Your task to perform on an android device: toggle improve location accuracy Image 0: 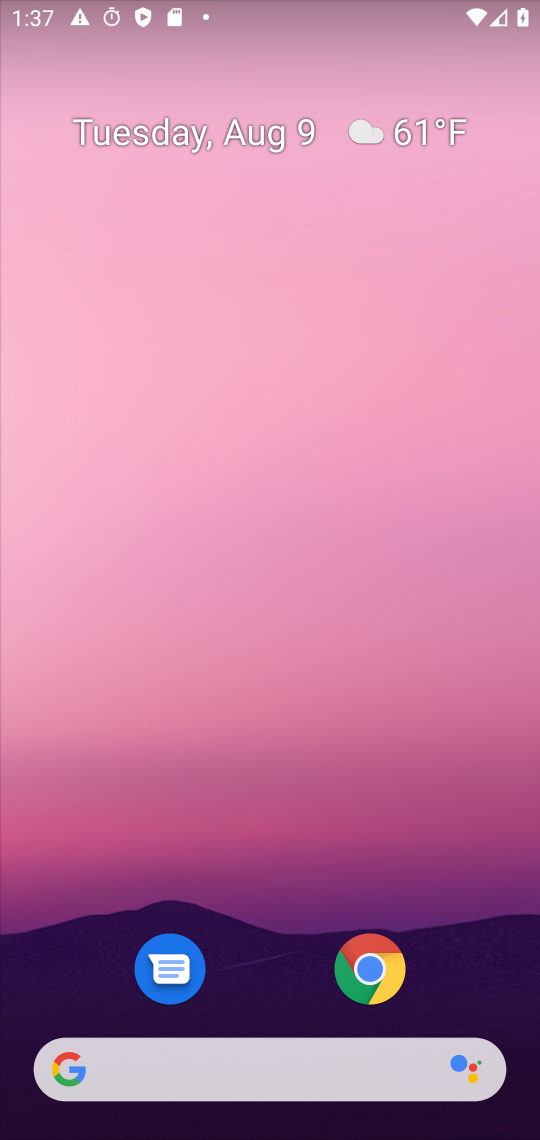
Step 0: drag from (273, 1125) to (282, 474)
Your task to perform on an android device: toggle improve location accuracy Image 1: 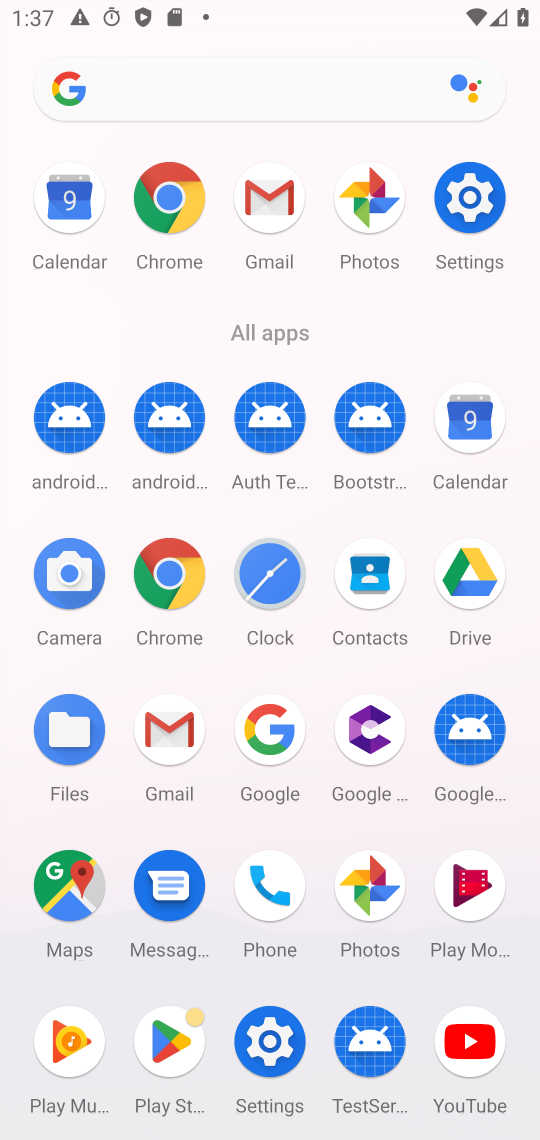
Step 1: click (481, 196)
Your task to perform on an android device: toggle improve location accuracy Image 2: 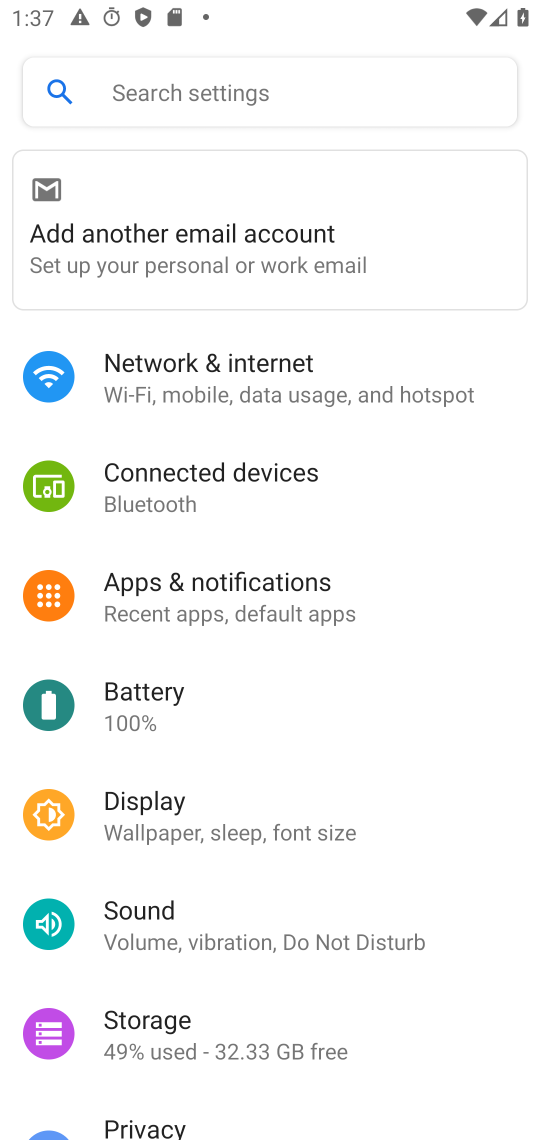
Step 2: click (253, 106)
Your task to perform on an android device: toggle improve location accuracy Image 3: 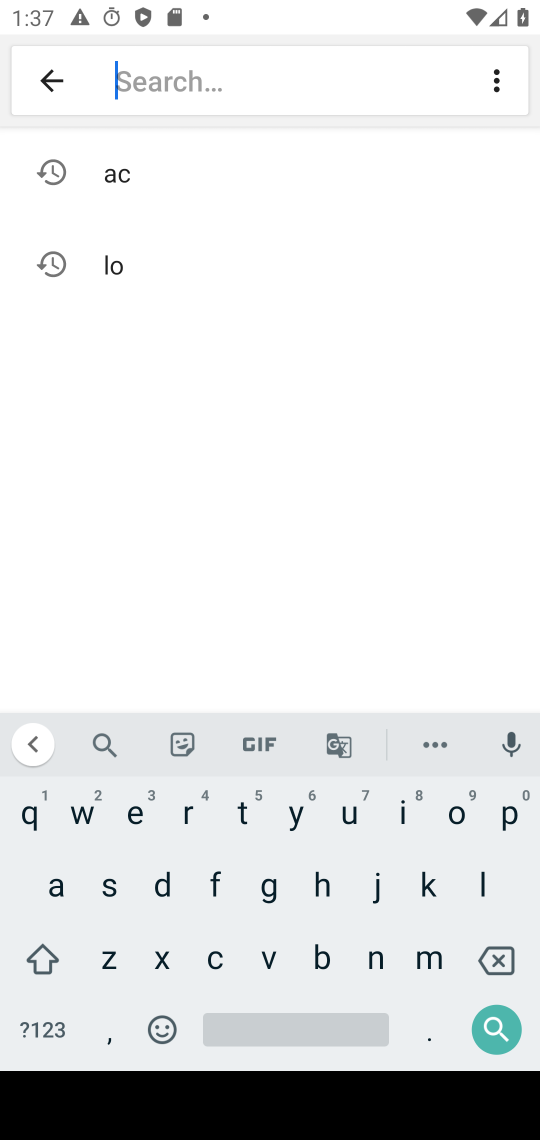
Step 3: click (122, 274)
Your task to perform on an android device: toggle improve location accuracy Image 4: 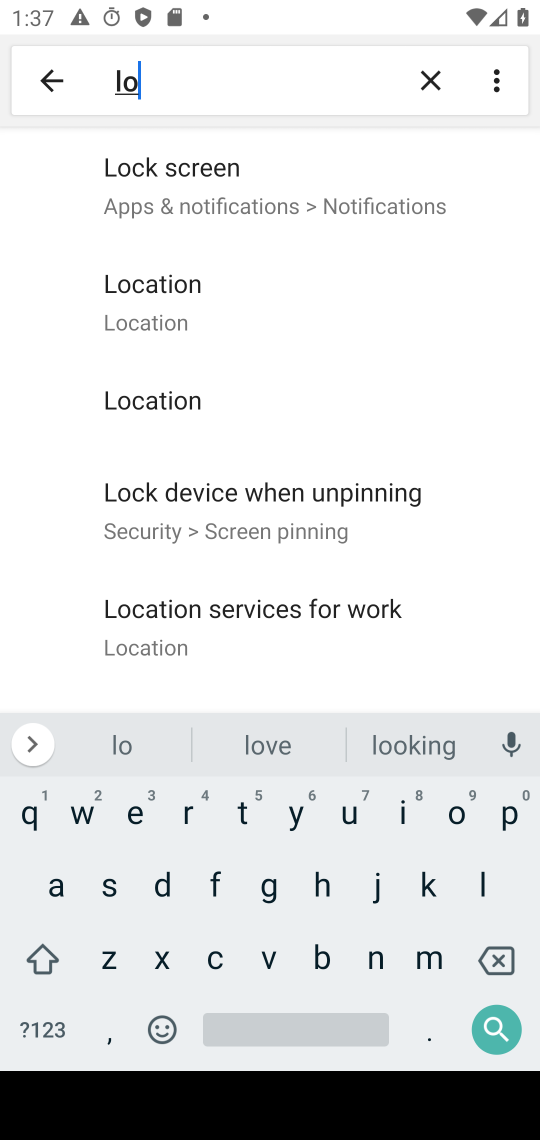
Step 4: click (165, 305)
Your task to perform on an android device: toggle improve location accuracy Image 5: 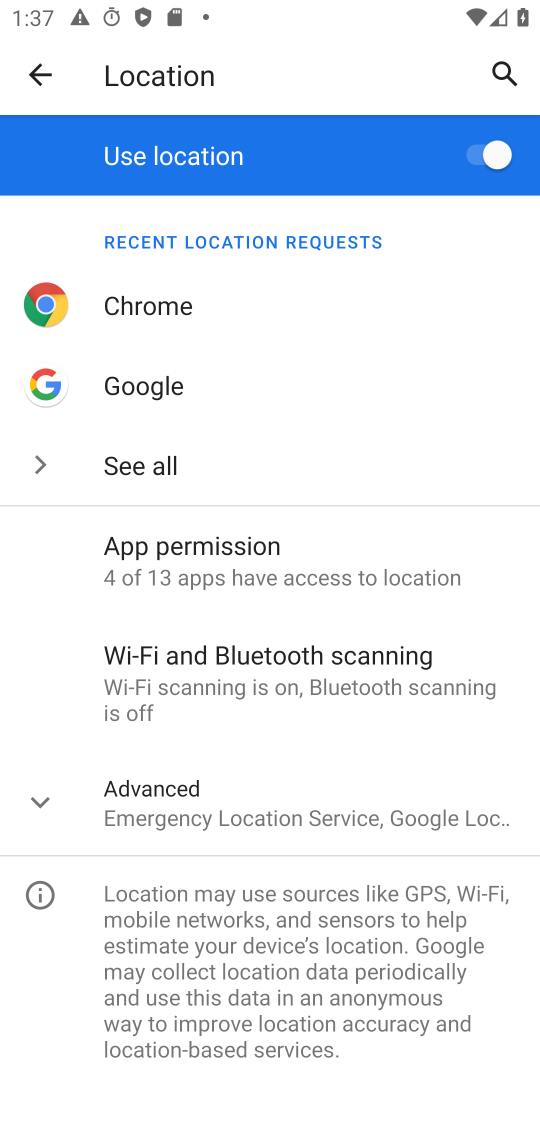
Step 5: click (47, 786)
Your task to perform on an android device: toggle improve location accuracy Image 6: 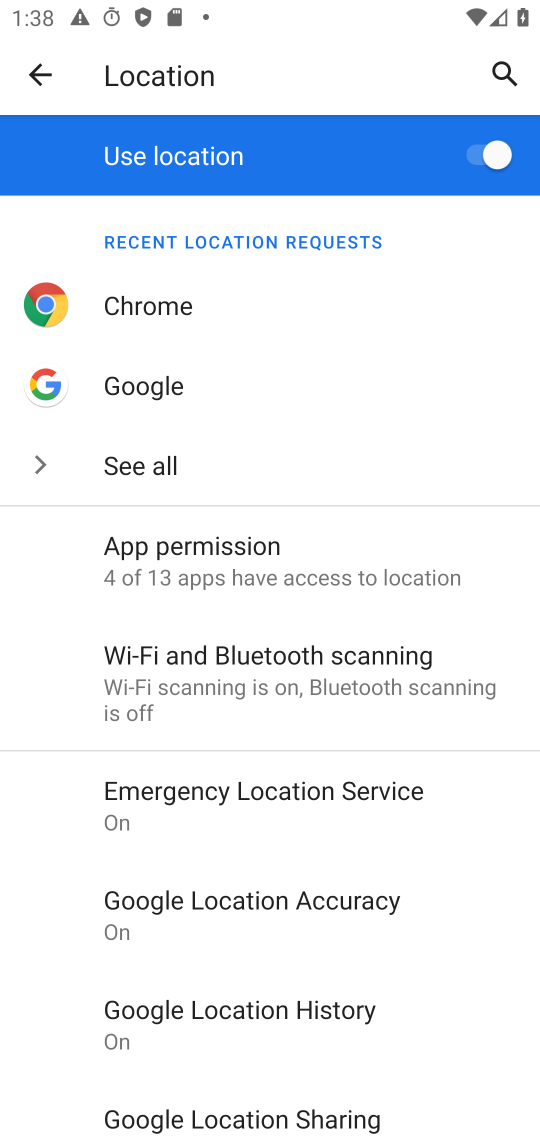
Step 6: click (239, 897)
Your task to perform on an android device: toggle improve location accuracy Image 7: 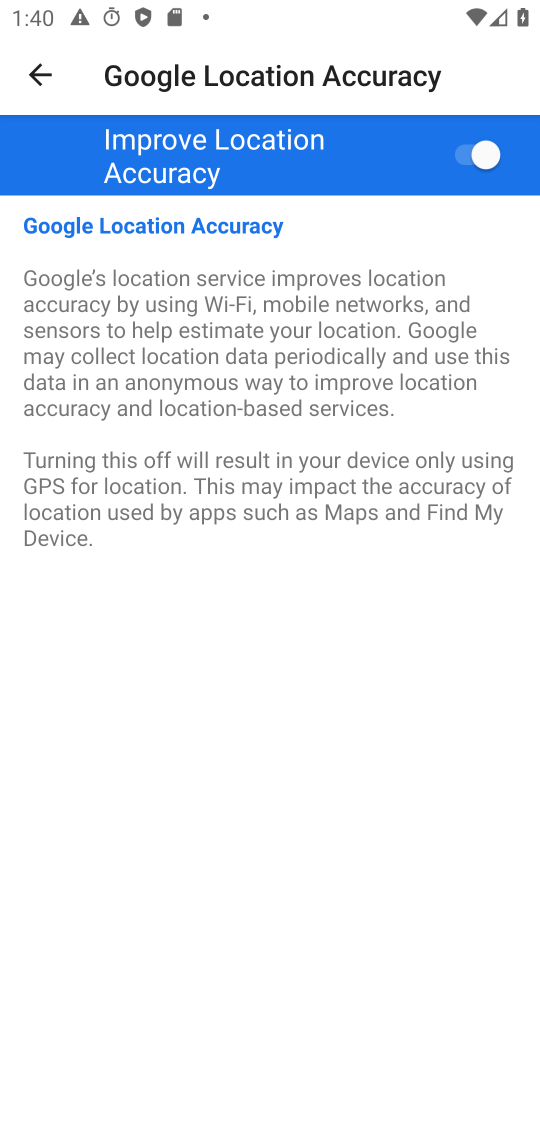
Step 7: task complete